Your task to perform on an android device: check battery use Image 0: 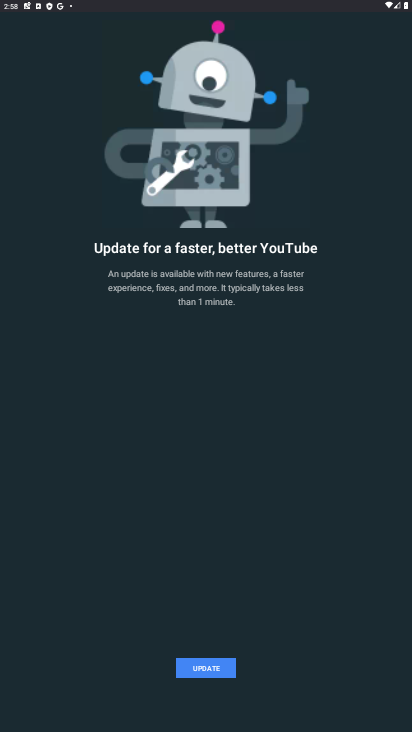
Step 0: drag from (164, 6) to (171, 426)
Your task to perform on an android device: check battery use Image 1: 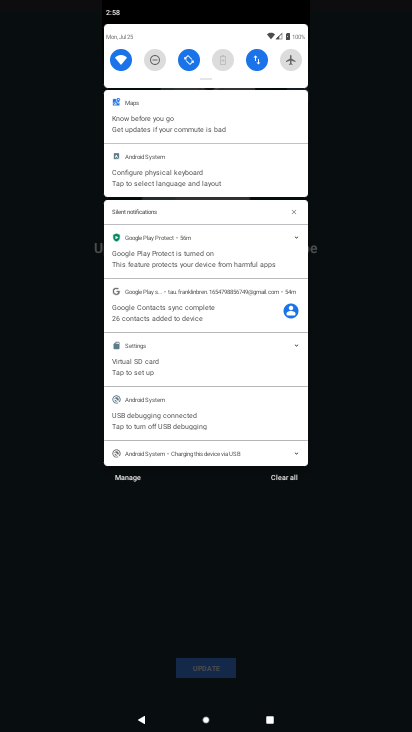
Step 1: click (218, 67)
Your task to perform on an android device: check battery use Image 2: 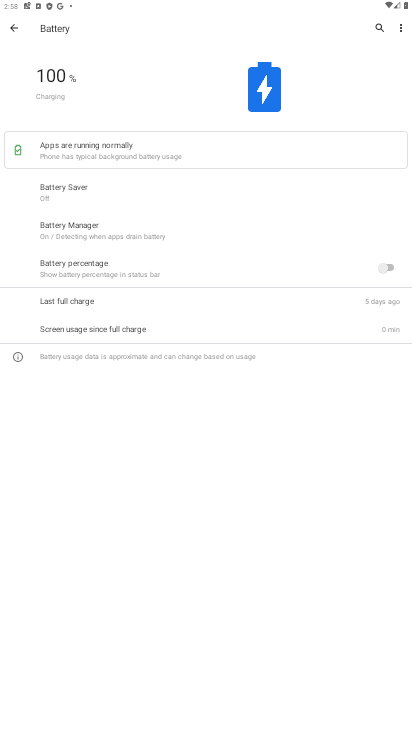
Step 2: click (403, 20)
Your task to perform on an android device: check battery use Image 3: 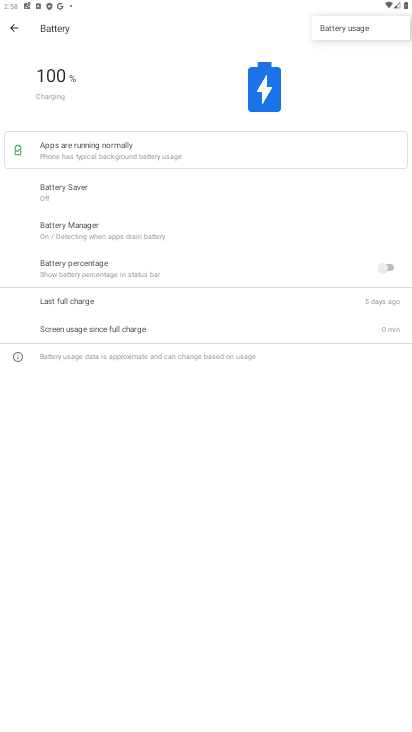
Step 3: click (321, 34)
Your task to perform on an android device: check battery use Image 4: 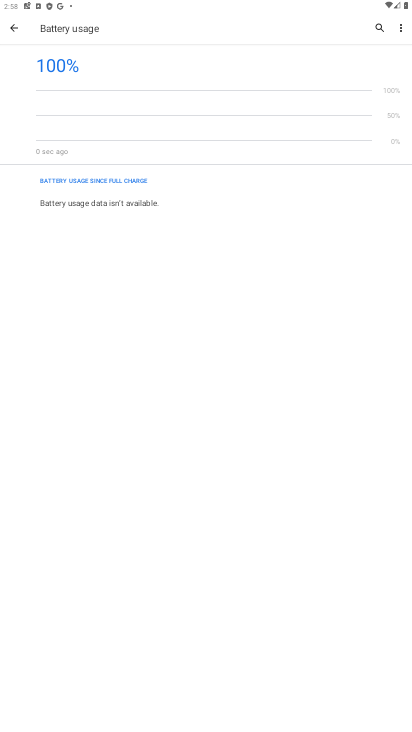
Step 4: task complete